Your task to perform on an android device: check storage Image 0: 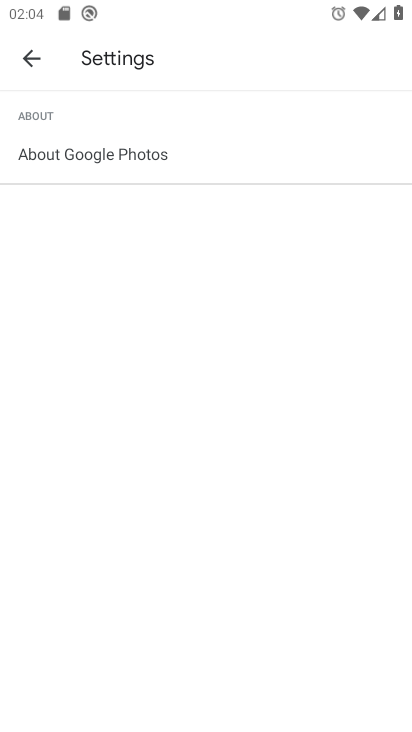
Step 0: press home button
Your task to perform on an android device: check storage Image 1: 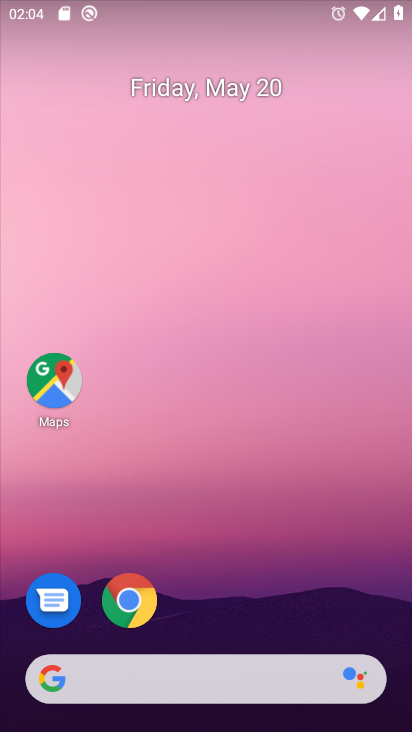
Step 1: drag from (243, 628) to (223, 110)
Your task to perform on an android device: check storage Image 2: 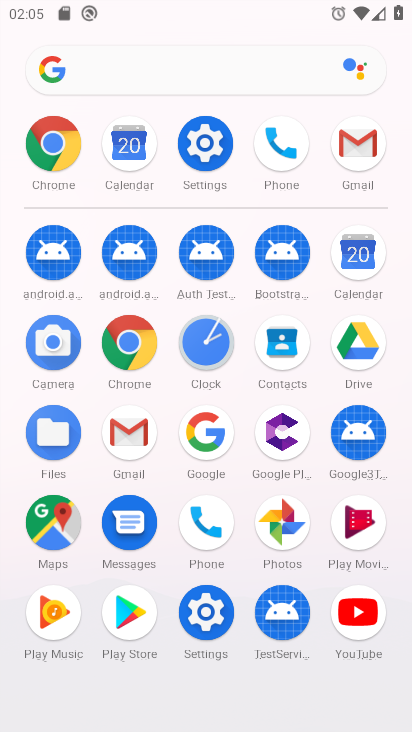
Step 2: click (205, 136)
Your task to perform on an android device: check storage Image 3: 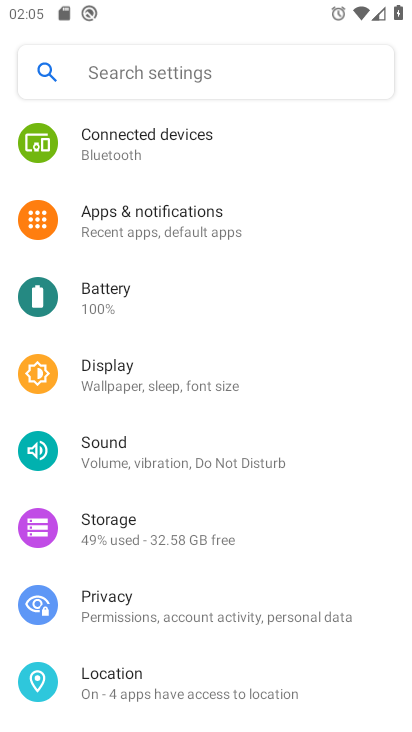
Step 3: click (180, 540)
Your task to perform on an android device: check storage Image 4: 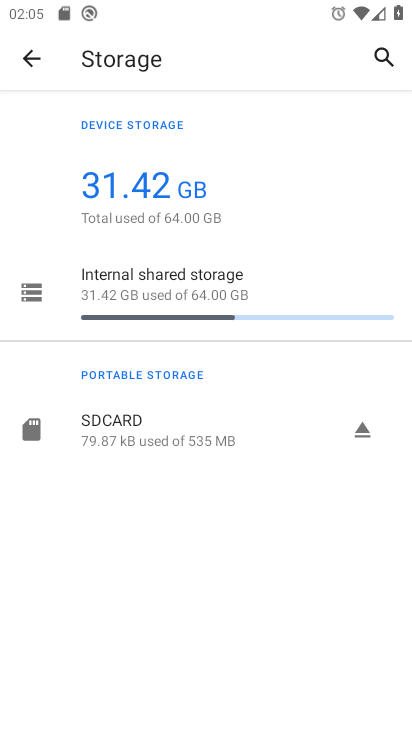
Step 4: click (177, 288)
Your task to perform on an android device: check storage Image 5: 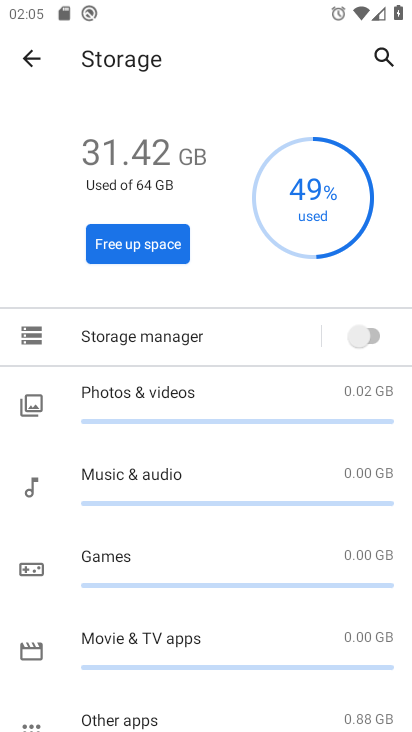
Step 5: task complete